Your task to perform on an android device: Open location settings Image 0: 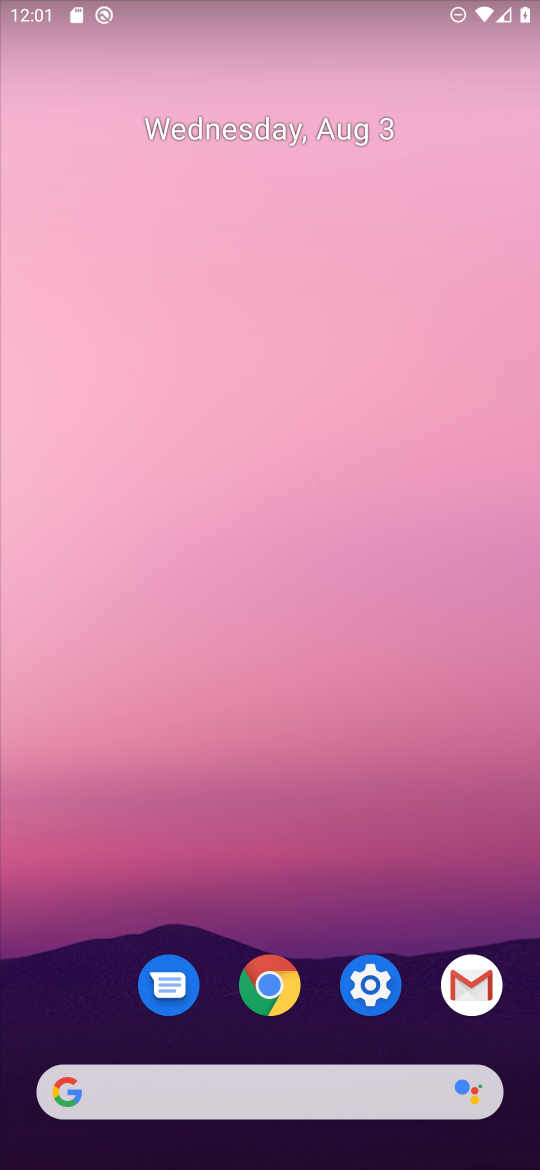
Step 0: press home button
Your task to perform on an android device: Open location settings Image 1: 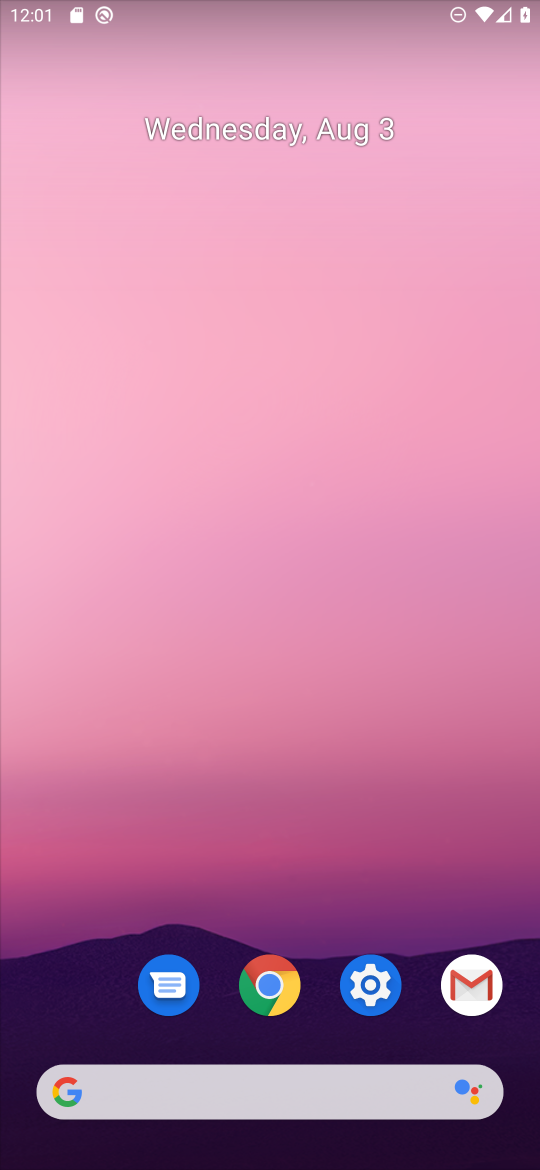
Step 1: click (368, 992)
Your task to perform on an android device: Open location settings Image 2: 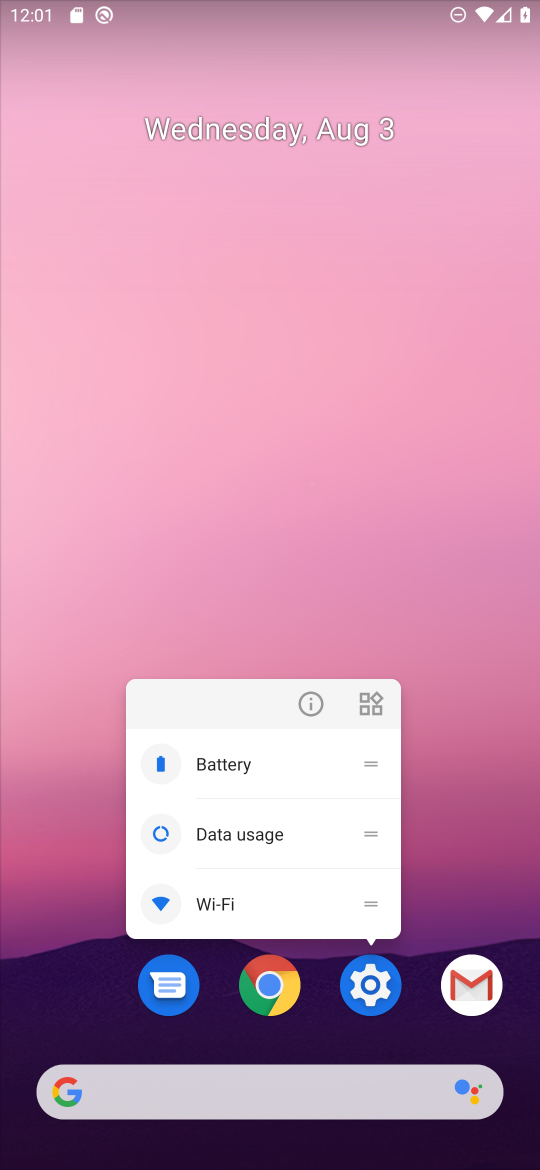
Step 2: click (370, 987)
Your task to perform on an android device: Open location settings Image 3: 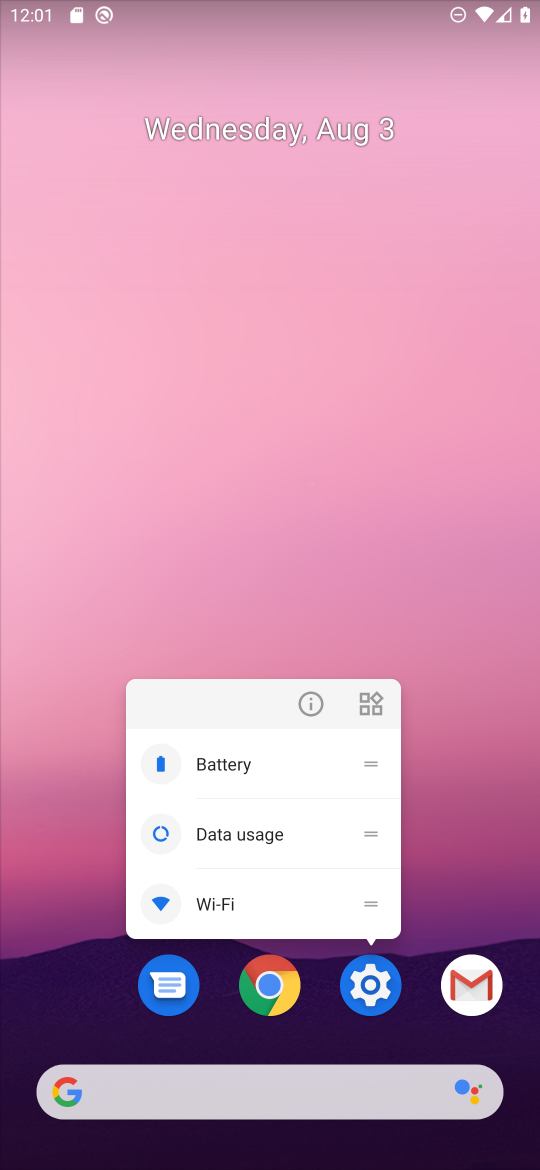
Step 3: click (372, 987)
Your task to perform on an android device: Open location settings Image 4: 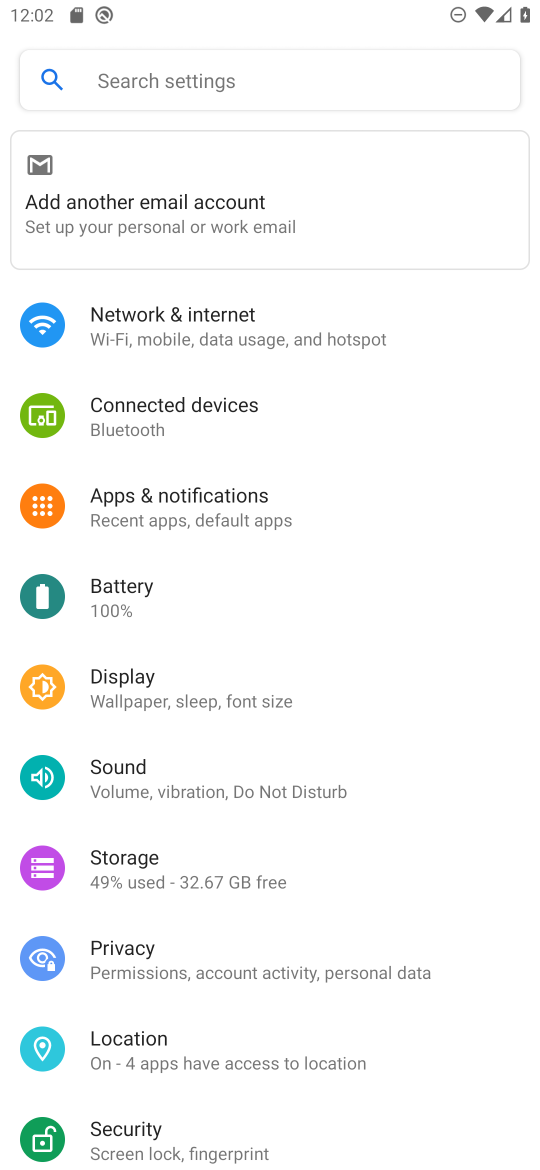
Step 4: click (203, 73)
Your task to perform on an android device: Open location settings Image 5: 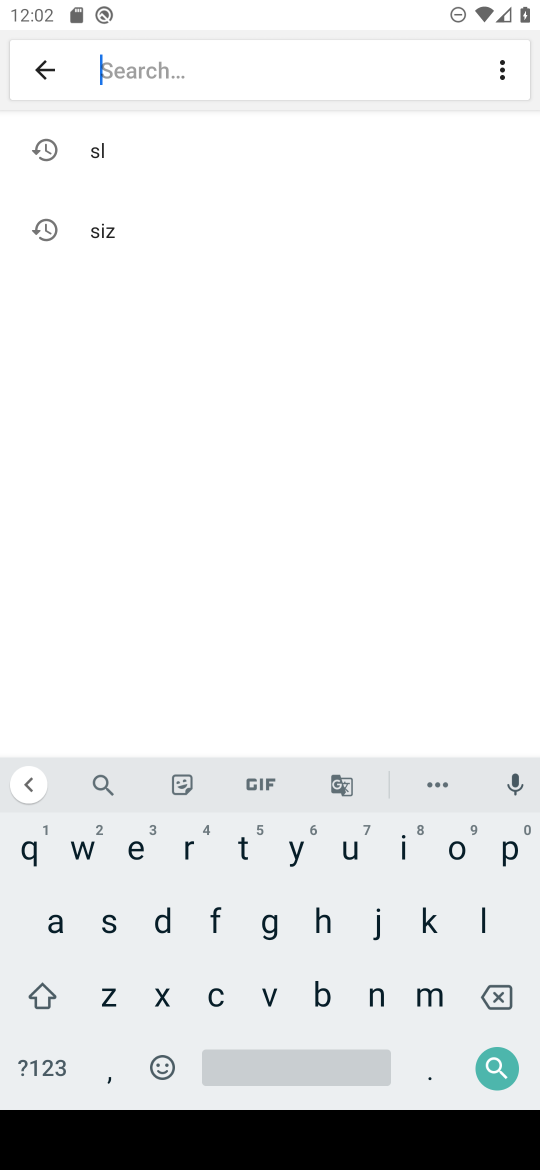
Step 5: click (475, 911)
Your task to perform on an android device: Open location settings Image 6: 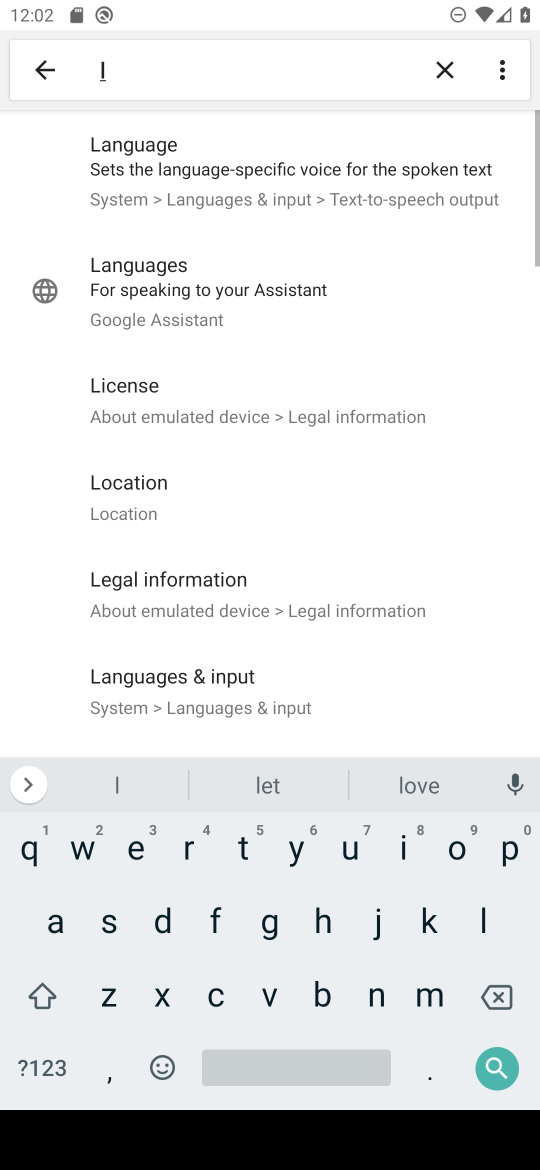
Step 6: click (458, 852)
Your task to perform on an android device: Open location settings Image 7: 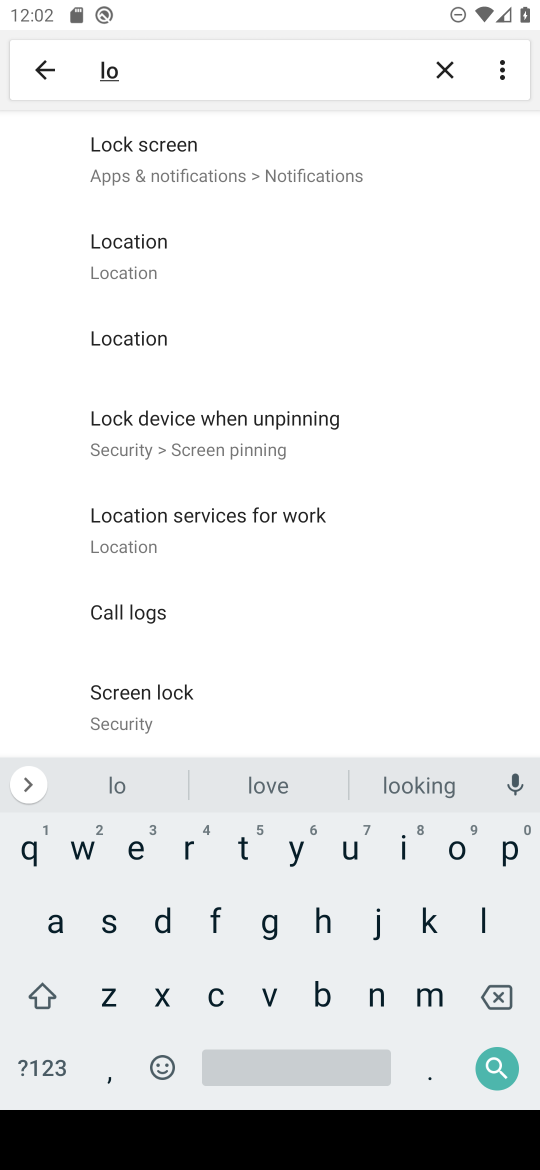
Step 7: click (138, 257)
Your task to perform on an android device: Open location settings Image 8: 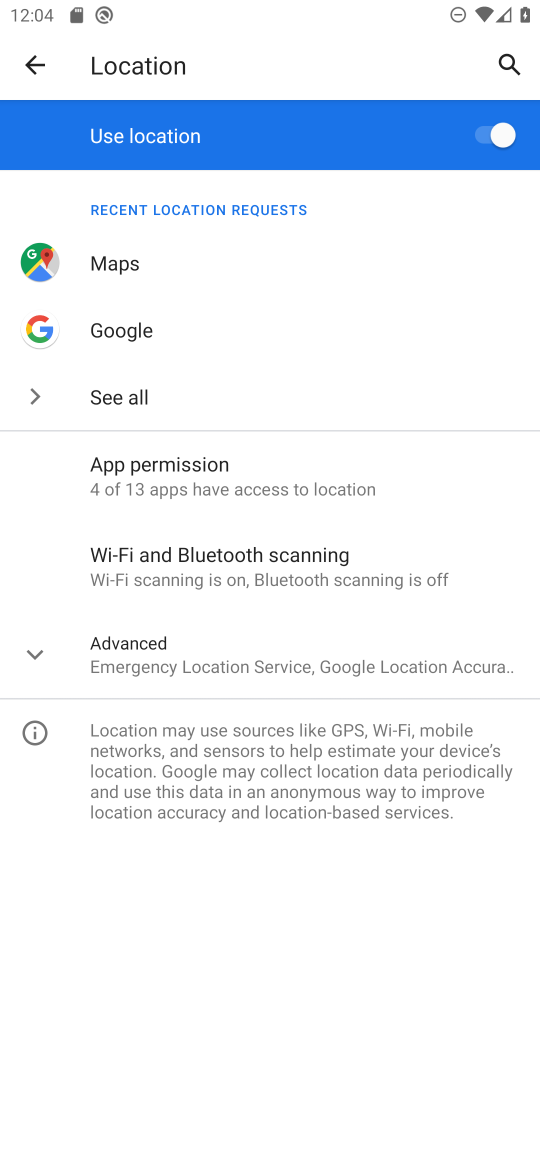
Step 8: task complete